Your task to perform on an android device: Go to location settings Image 0: 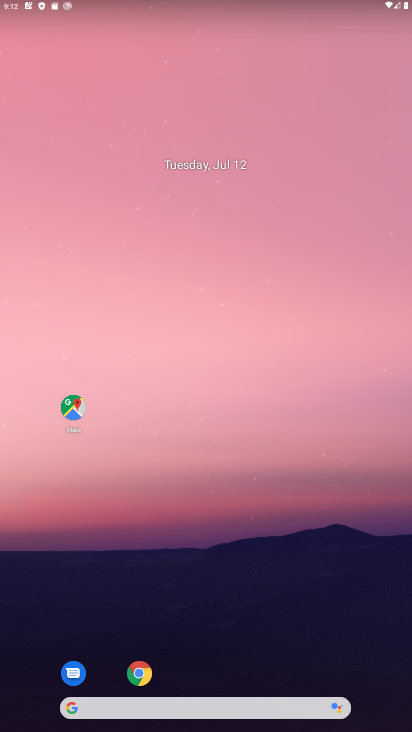
Step 0: drag from (195, 675) to (240, 129)
Your task to perform on an android device: Go to location settings Image 1: 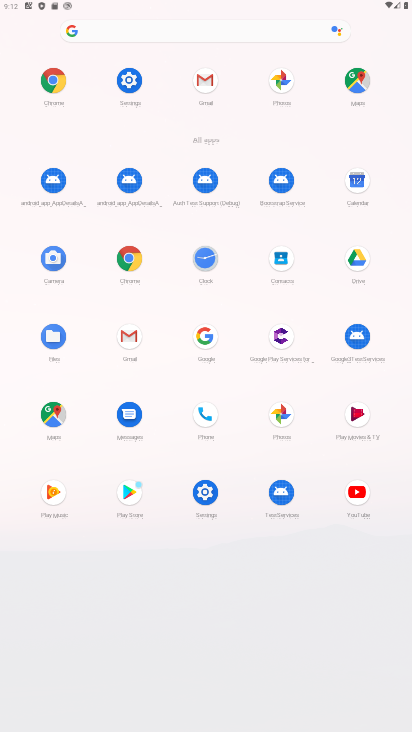
Step 1: click (130, 90)
Your task to perform on an android device: Go to location settings Image 2: 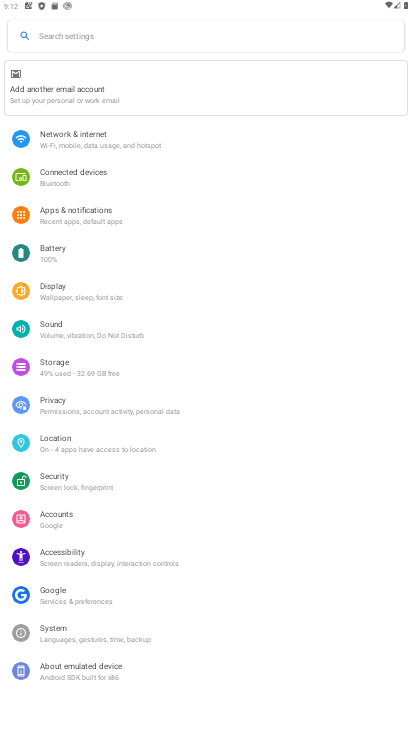
Step 2: click (58, 445)
Your task to perform on an android device: Go to location settings Image 3: 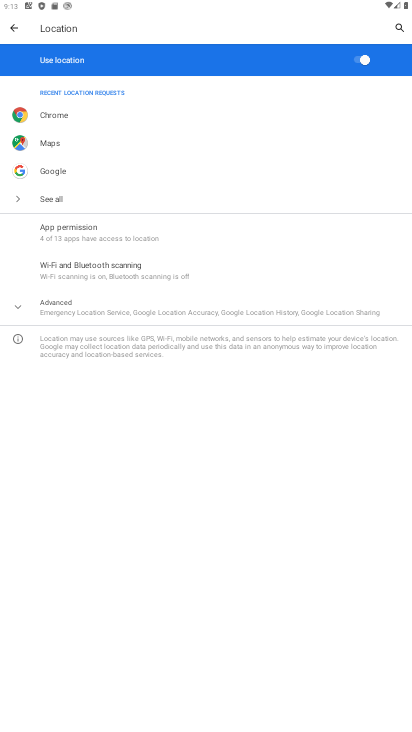
Step 3: task complete